Your task to perform on an android device: Find coffee shops on Maps Image 0: 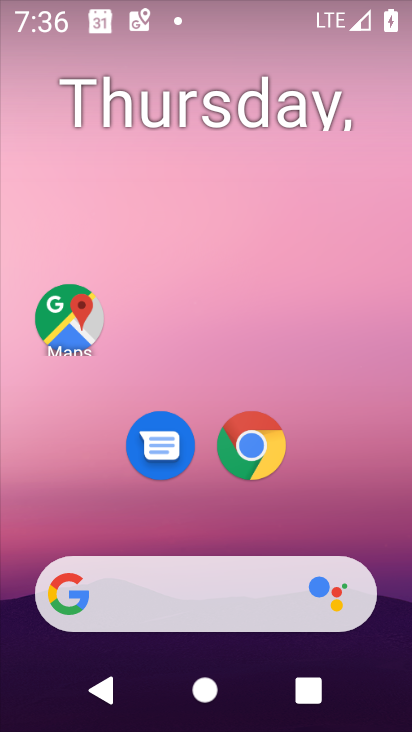
Step 0: drag from (396, 541) to (236, 0)
Your task to perform on an android device: Find coffee shops on Maps Image 1: 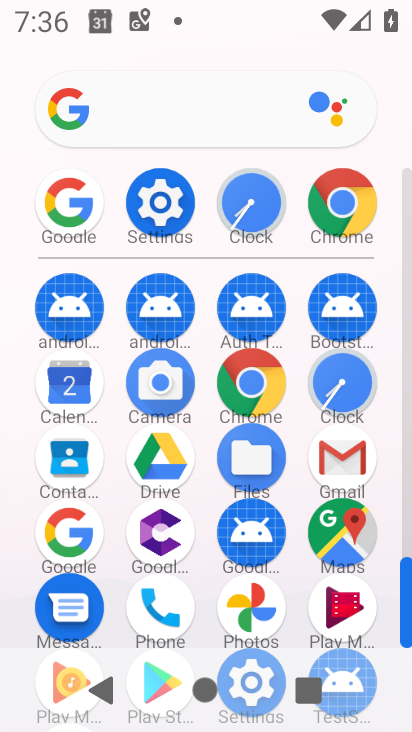
Step 1: click (360, 521)
Your task to perform on an android device: Find coffee shops on Maps Image 2: 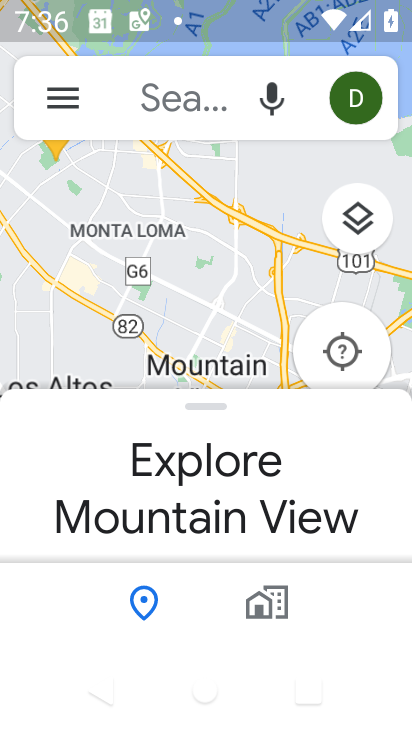
Step 2: click (161, 106)
Your task to perform on an android device: Find coffee shops on Maps Image 3: 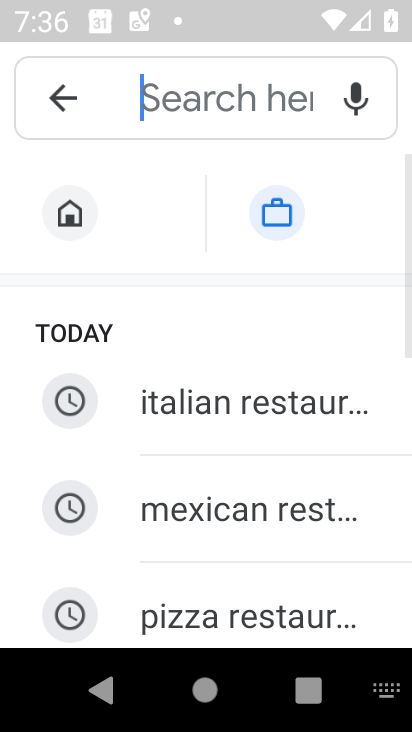
Step 3: drag from (137, 576) to (148, 41)
Your task to perform on an android device: Find coffee shops on Maps Image 4: 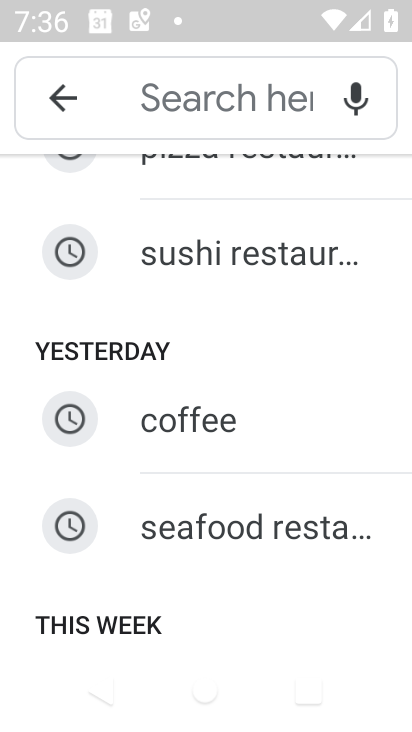
Step 4: click (164, 422)
Your task to perform on an android device: Find coffee shops on Maps Image 5: 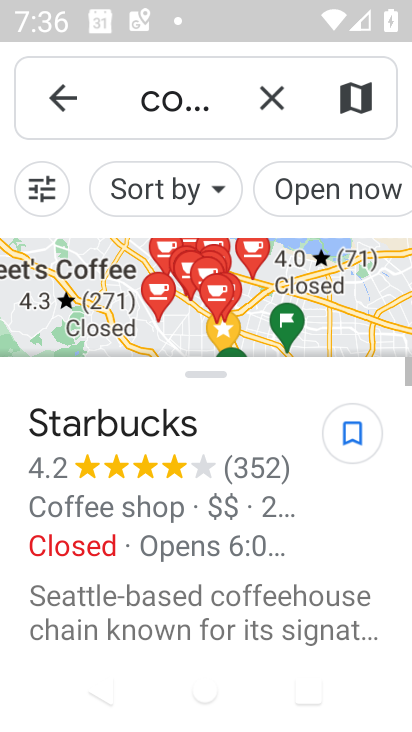
Step 5: task complete